Your task to perform on an android device: Open accessibility settings Image 0: 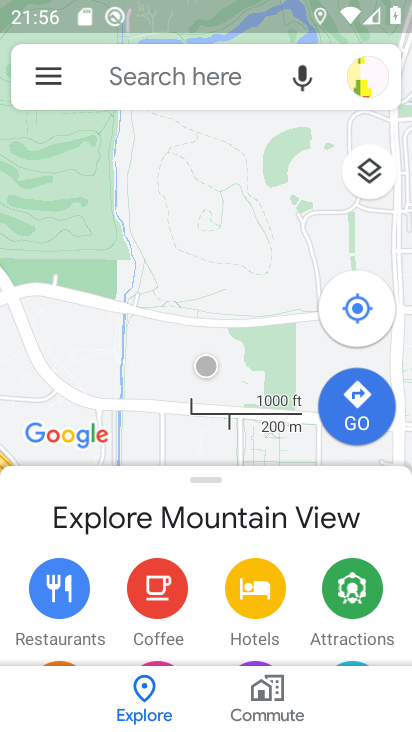
Step 0: press home button
Your task to perform on an android device: Open accessibility settings Image 1: 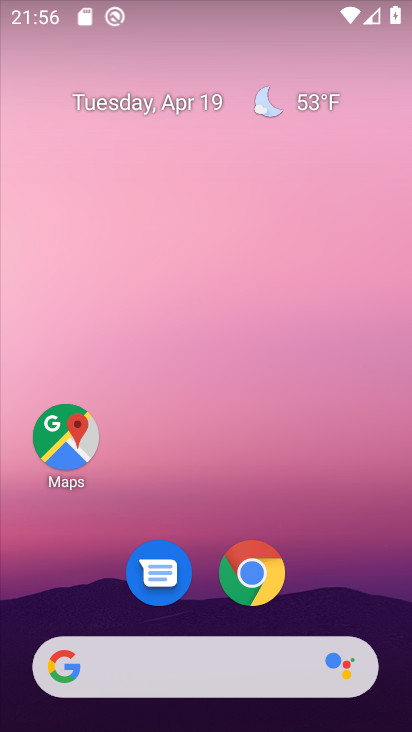
Step 1: drag from (209, 581) to (231, 119)
Your task to perform on an android device: Open accessibility settings Image 2: 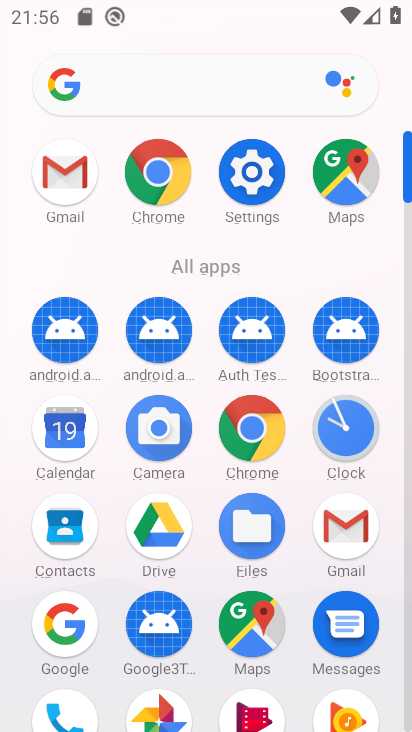
Step 2: click (250, 169)
Your task to perform on an android device: Open accessibility settings Image 3: 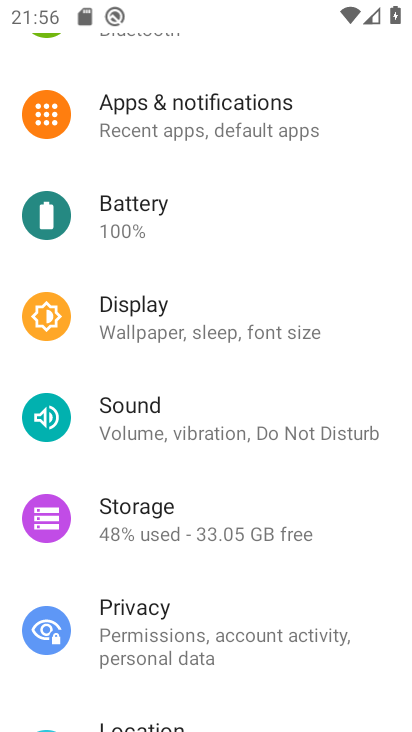
Step 3: drag from (184, 651) to (245, 164)
Your task to perform on an android device: Open accessibility settings Image 4: 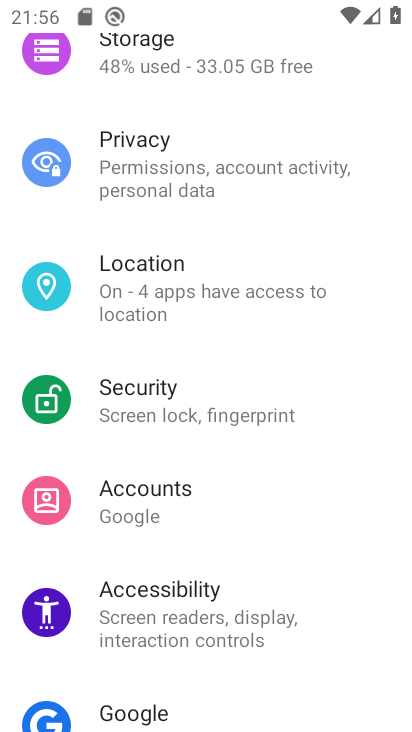
Step 4: click (207, 602)
Your task to perform on an android device: Open accessibility settings Image 5: 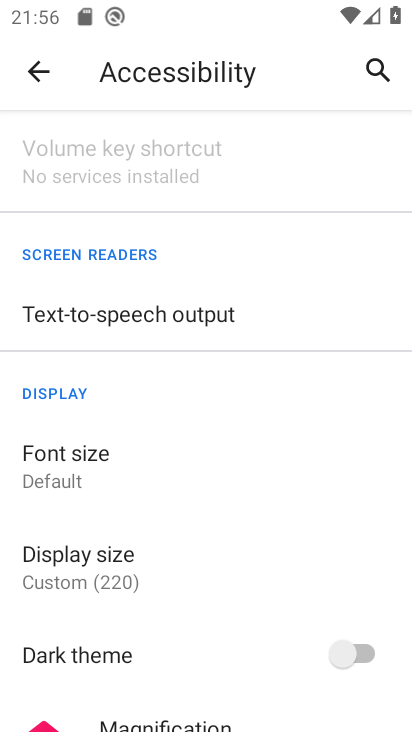
Step 5: task complete